Your task to perform on an android device: change the clock display to show seconds Image 0: 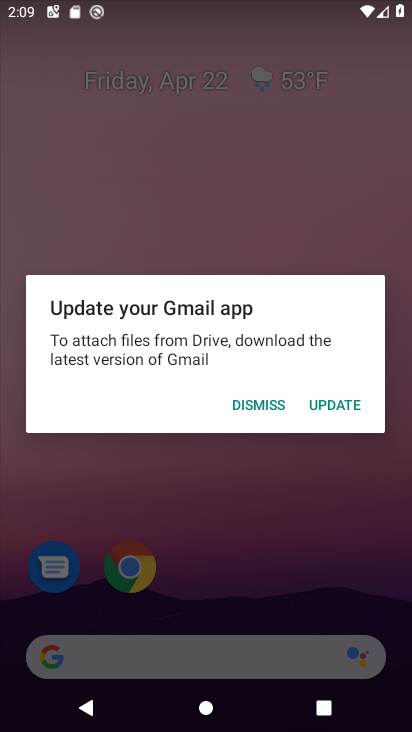
Step 0: press home button
Your task to perform on an android device: change the clock display to show seconds Image 1: 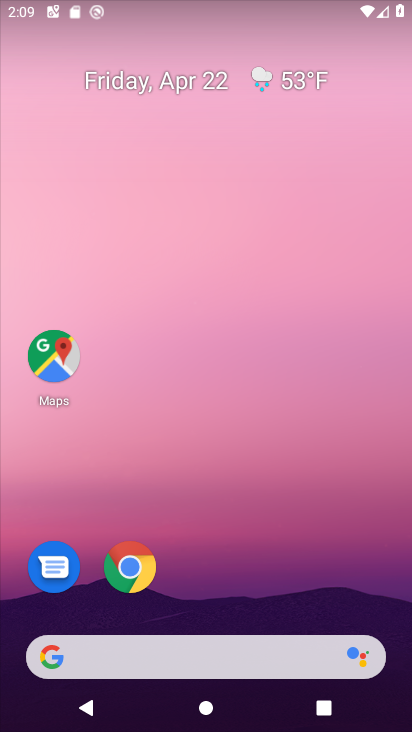
Step 1: drag from (273, 553) to (290, 68)
Your task to perform on an android device: change the clock display to show seconds Image 2: 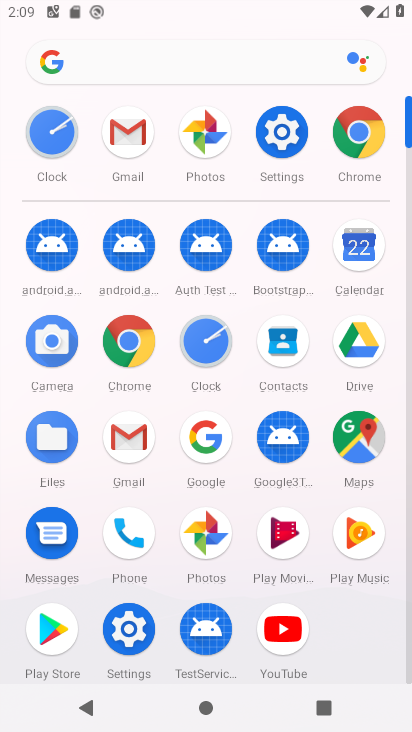
Step 2: click (215, 339)
Your task to perform on an android device: change the clock display to show seconds Image 3: 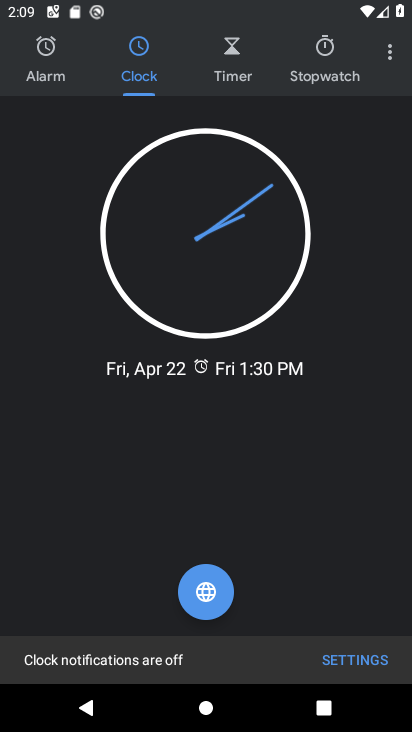
Step 3: click (390, 55)
Your task to perform on an android device: change the clock display to show seconds Image 4: 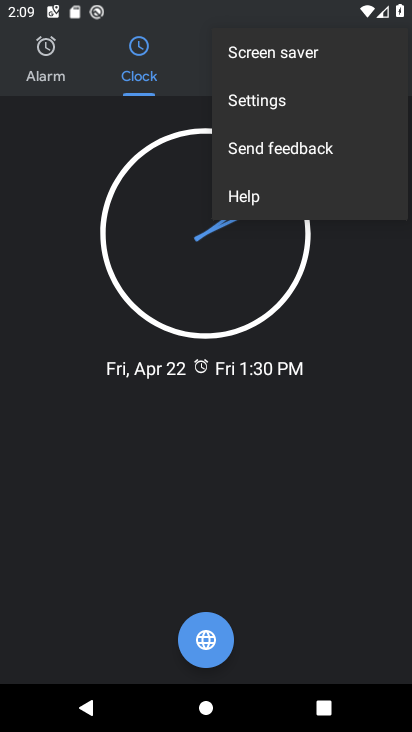
Step 4: click (336, 111)
Your task to perform on an android device: change the clock display to show seconds Image 5: 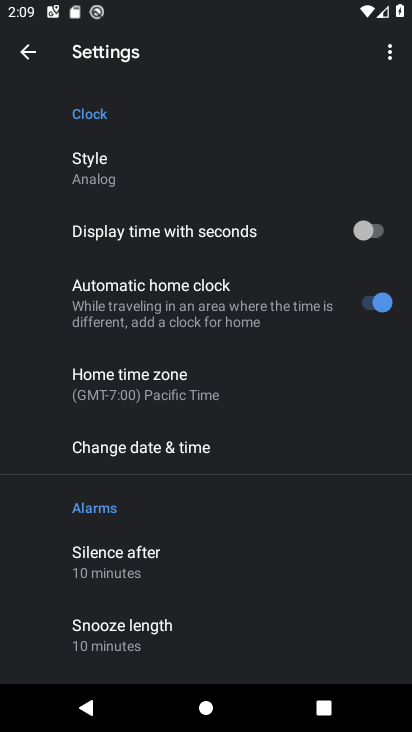
Step 5: click (369, 231)
Your task to perform on an android device: change the clock display to show seconds Image 6: 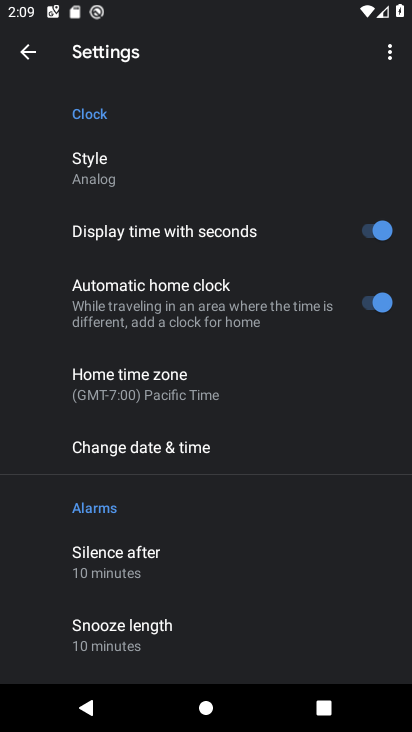
Step 6: task complete